Your task to perform on an android device: Go to Reddit.com Image 0: 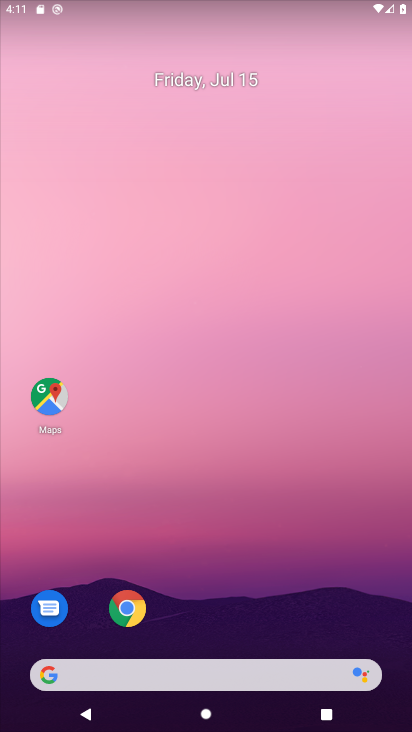
Step 0: click (126, 618)
Your task to perform on an android device: Go to Reddit.com Image 1: 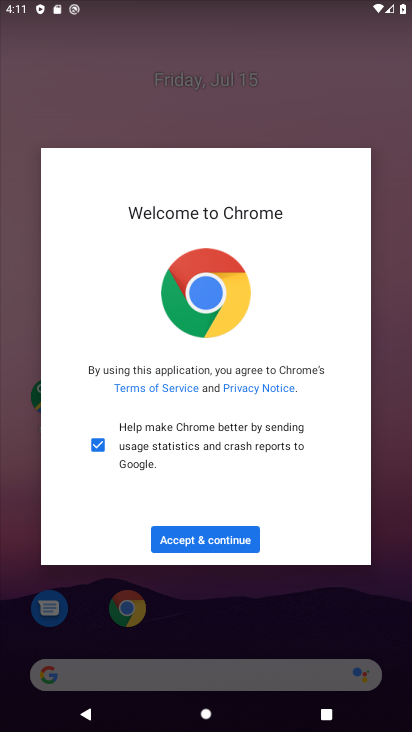
Step 1: click (245, 547)
Your task to perform on an android device: Go to Reddit.com Image 2: 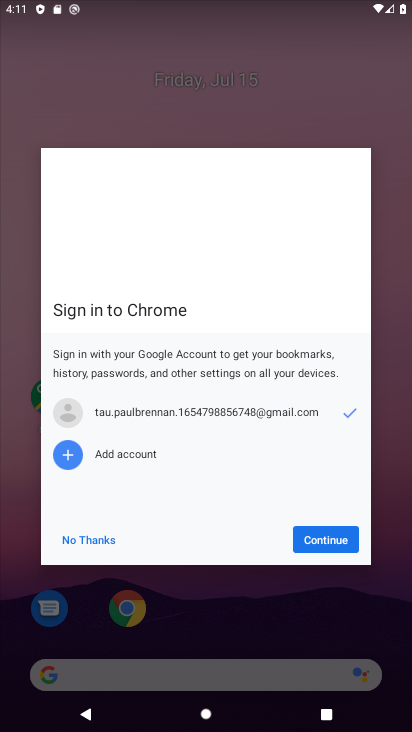
Step 2: click (332, 548)
Your task to perform on an android device: Go to Reddit.com Image 3: 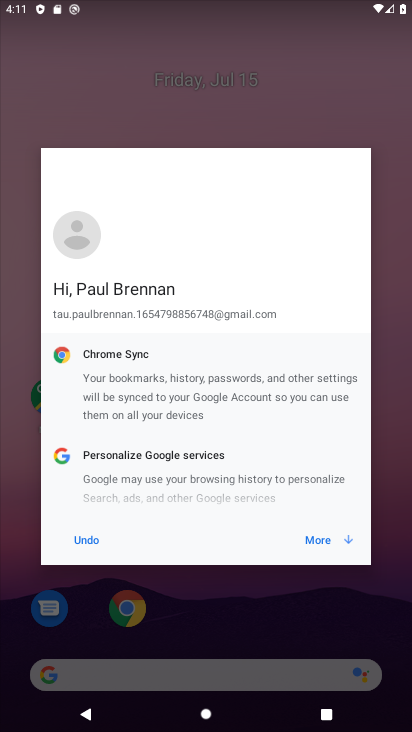
Step 3: click (316, 538)
Your task to perform on an android device: Go to Reddit.com Image 4: 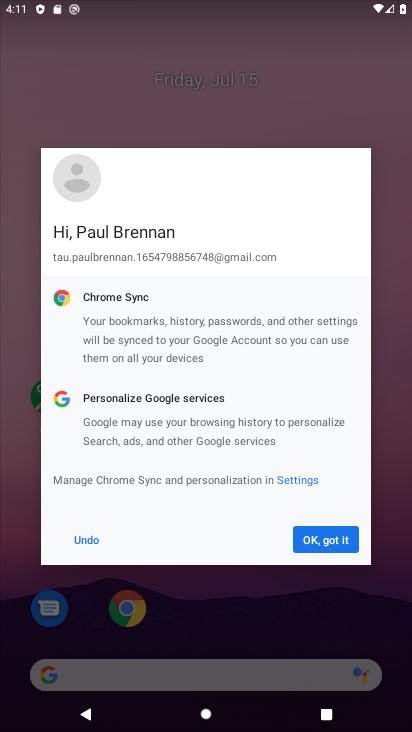
Step 4: click (316, 538)
Your task to perform on an android device: Go to Reddit.com Image 5: 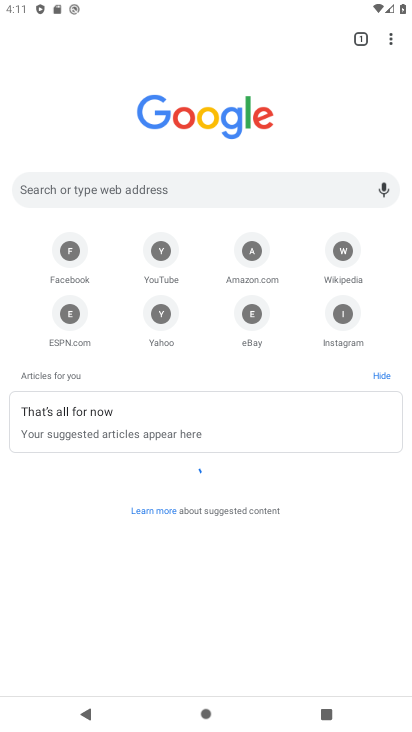
Step 5: click (221, 182)
Your task to perform on an android device: Go to Reddit.com Image 6: 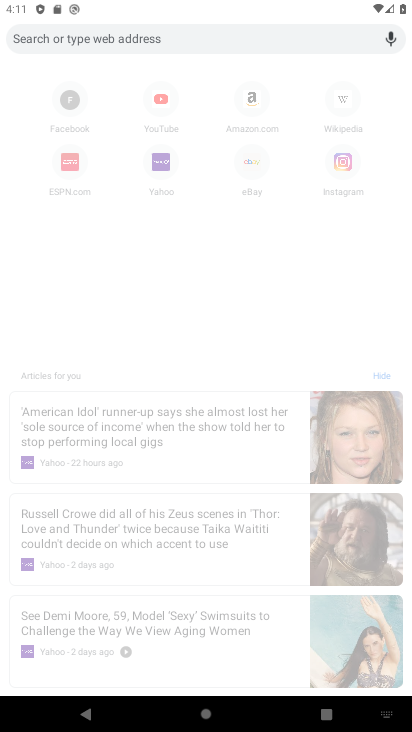
Step 6: type "reddit"
Your task to perform on an android device: Go to Reddit.com Image 7: 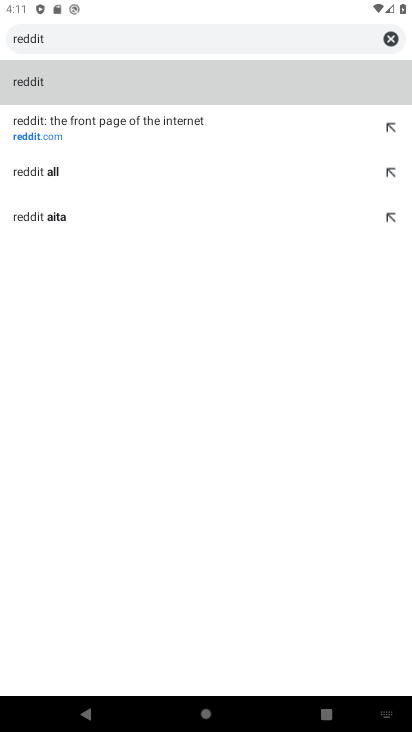
Step 7: click (79, 128)
Your task to perform on an android device: Go to Reddit.com Image 8: 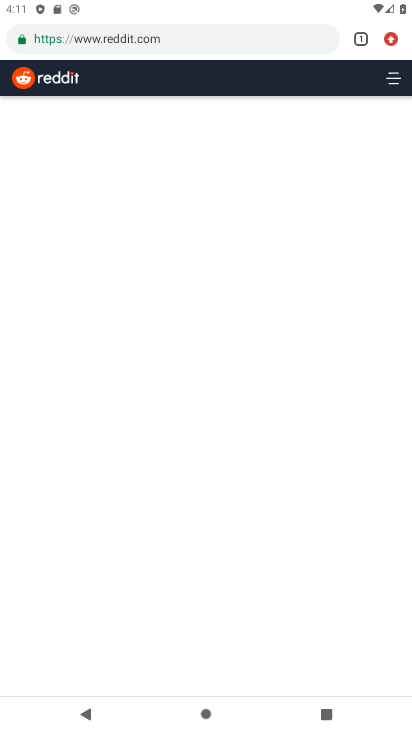
Step 8: task complete